Your task to perform on an android device: set an alarm Image 0: 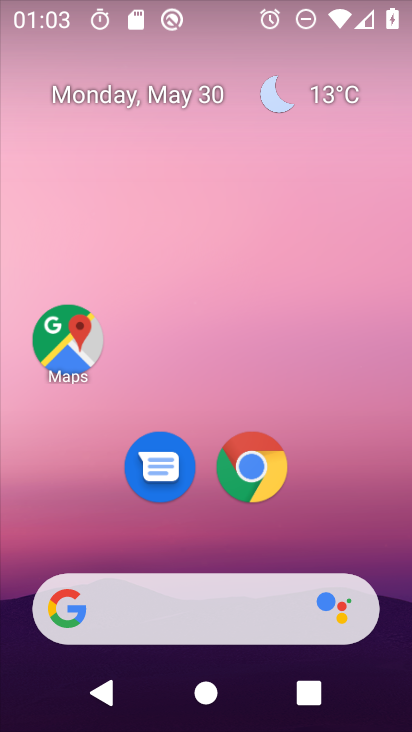
Step 0: drag from (197, 526) to (180, 148)
Your task to perform on an android device: set an alarm Image 1: 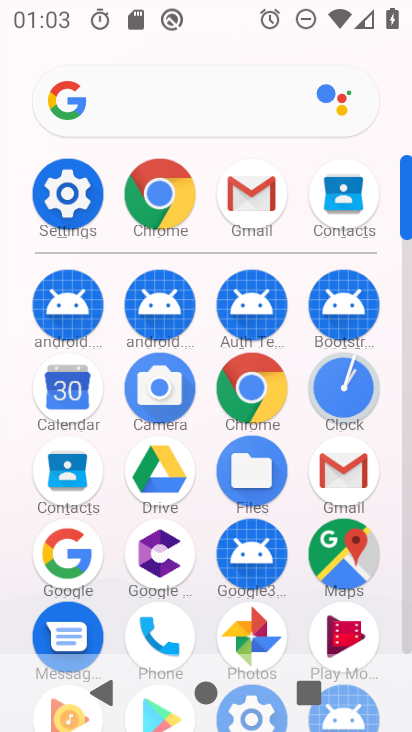
Step 1: click (355, 391)
Your task to perform on an android device: set an alarm Image 2: 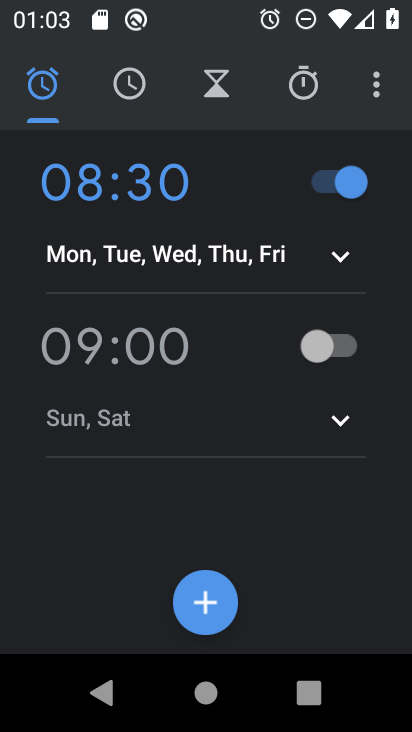
Step 2: task complete